Your task to perform on an android device: Open settings on Google Maps Image 0: 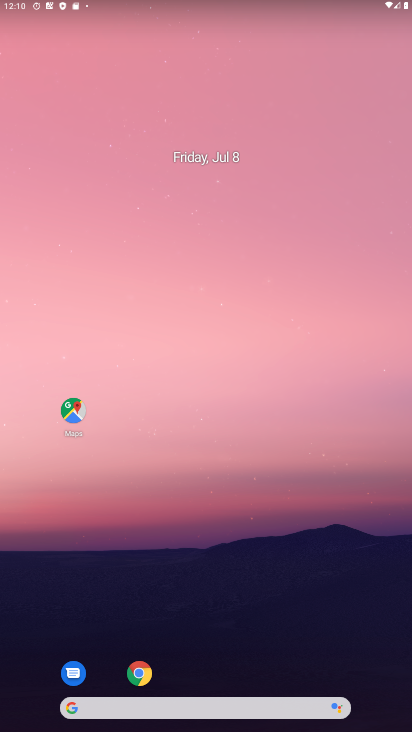
Step 0: click (70, 412)
Your task to perform on an android device: Open settings on Google Maps Image 1: 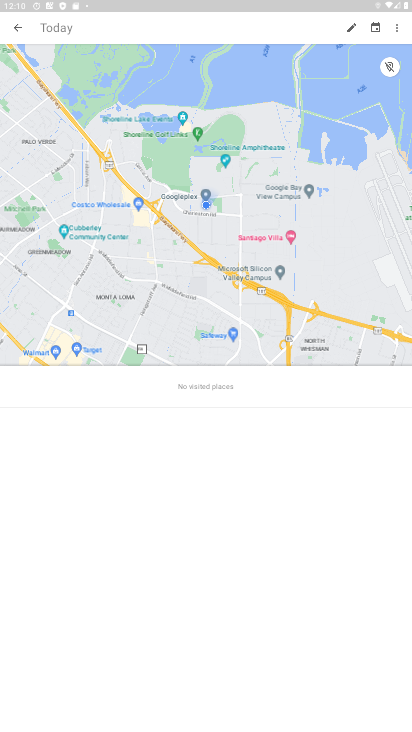
Step 1: press back button
Your task to perform on an android device: Open settings on Google Maps Image 2: 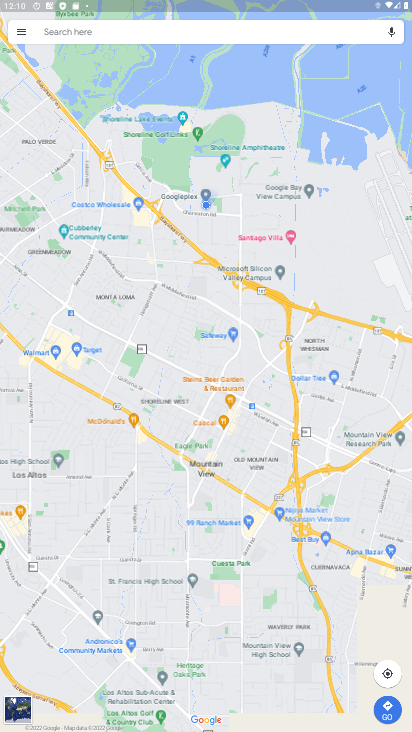
Step 2: click (21, 31)
Your task to perform on an android device: Open settings on Google Maps Image 3: 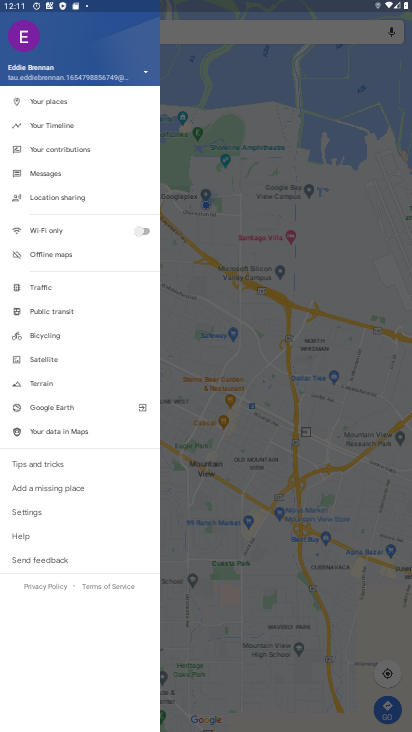
Step 3: click (38, 516)
Your task to perform on an android device: Open settings on Google Maps Image 4: 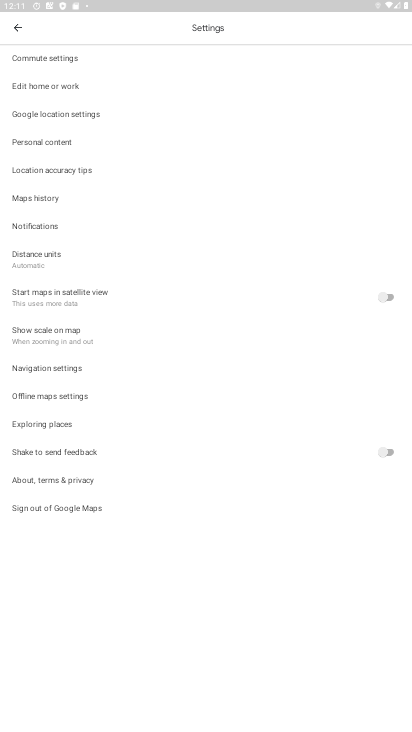
Step 4: task complete